Your task to perform on an android device: Open accessibility settings Image 0: 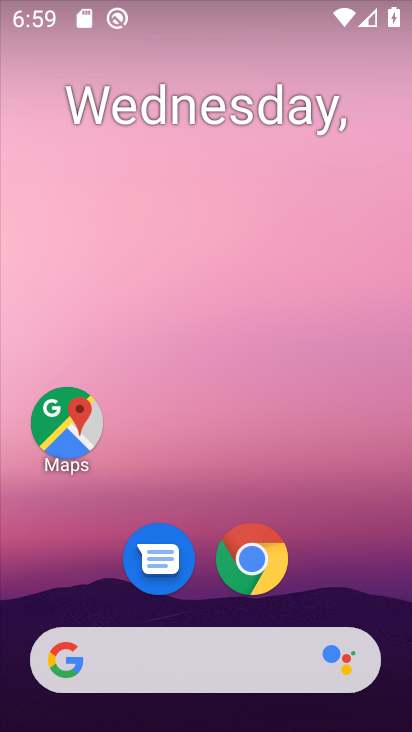
Step 0: drag from (365, 550) to (338, 144)
Your task to perform on an android device: Open accessibility settings Image 1: 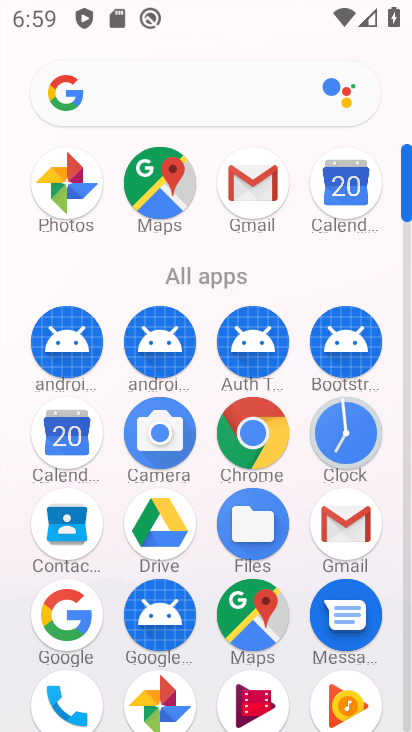
Step 1: click (409, 548)
Your task to perform on an android device: Open accessibility settings Image 2: 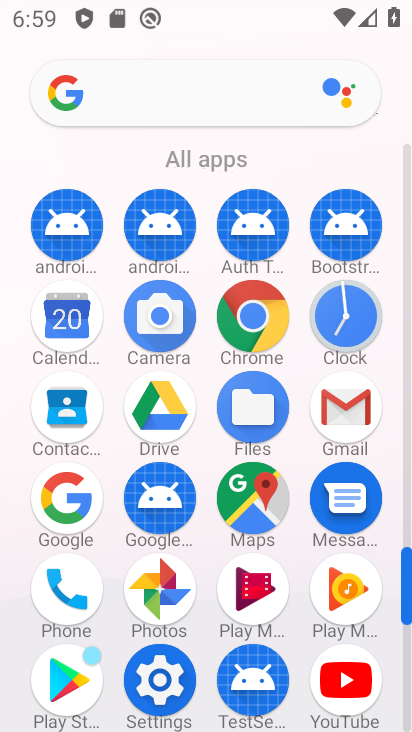
Step 2: click (182, 656)
Your task to perform on an android device: Open accessibility settings Image 3: 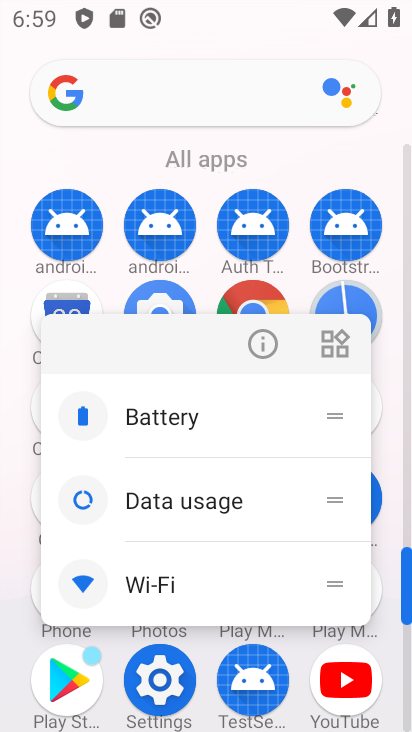
Step 3: click (182, 681)
Your task to perform on an android device: Open accessibility settings Image 4: 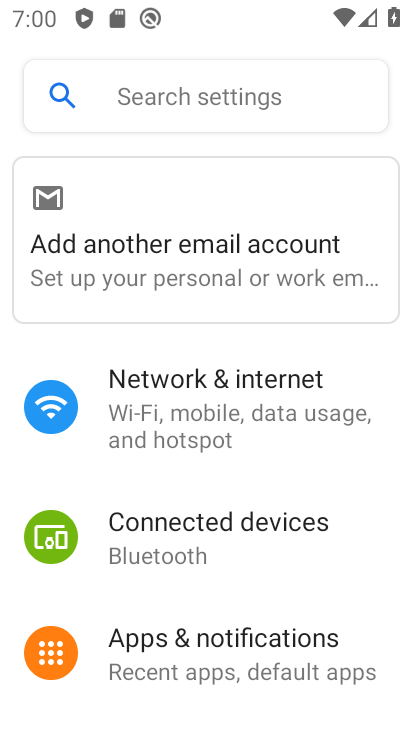
Step 4: drag from (234, 533) to (222, 51)
Your task to perform on an android device: Open accessibility settings Image 5: 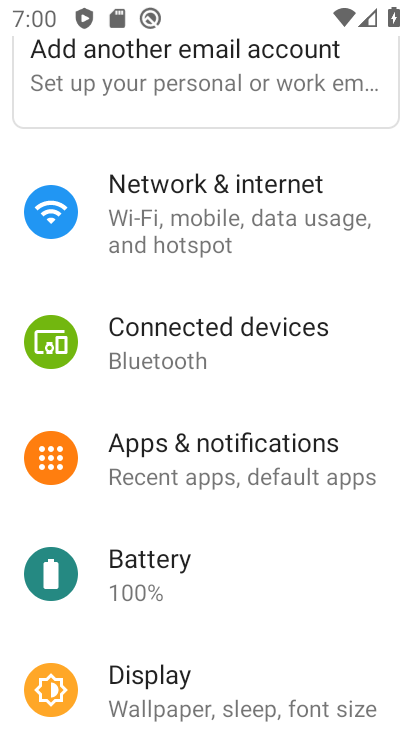
Step 5: drag from (211, 59) to (286, 24)
Your task to perform on an android device: Open accessibility settings Image 6: 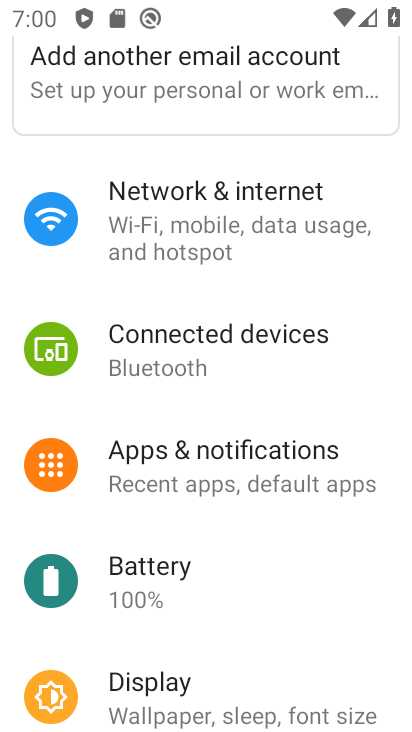
Step 6: drag from (284, 475) to (332, 0)
Your task to perform on an android device: Open accessibility settings Image 7: 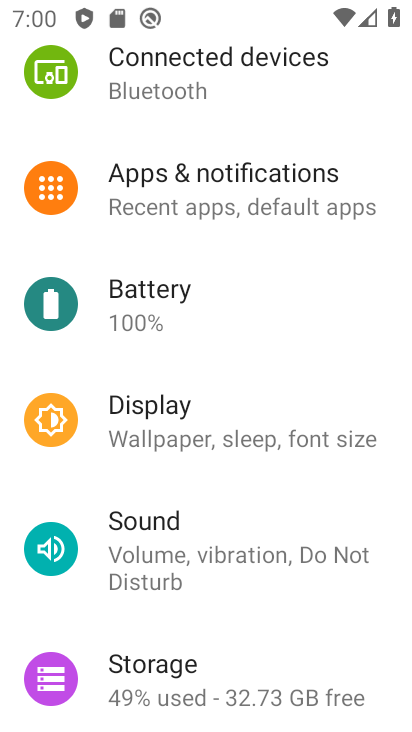
Step 7: drag from (314, 164) to (398, 116)
Your task to perform on an android device: Open accessibility settings Image 8: 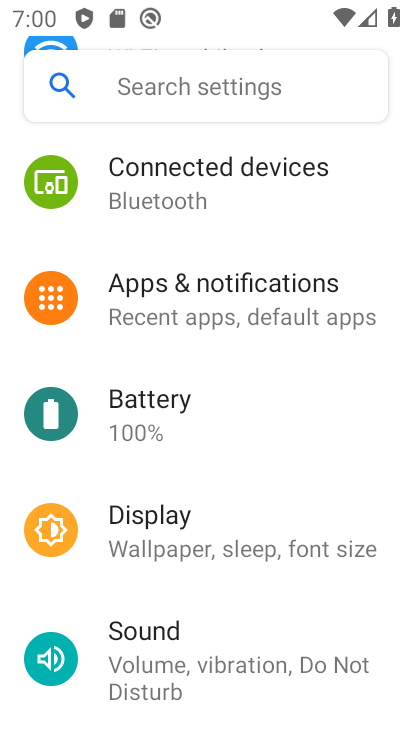
Step 8: drag from (201, 406) to (218, 18)
Your task to perform on an android device: Open accessibility settings Image 9: 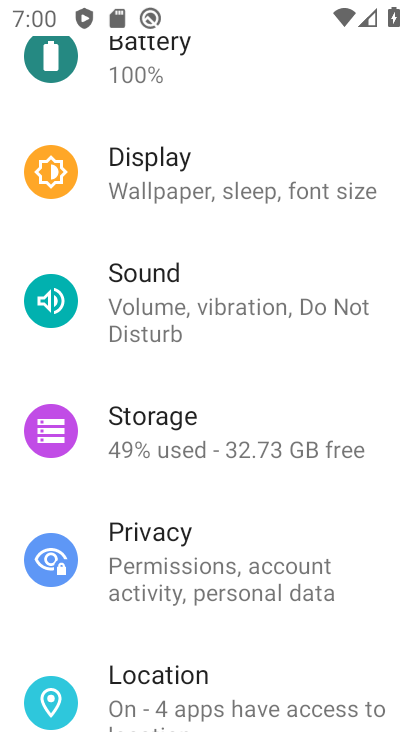
Step 9: drag from (178, 603) to (377, 34)
Your task to perform on an android device: Open accessibility settings Image 10: 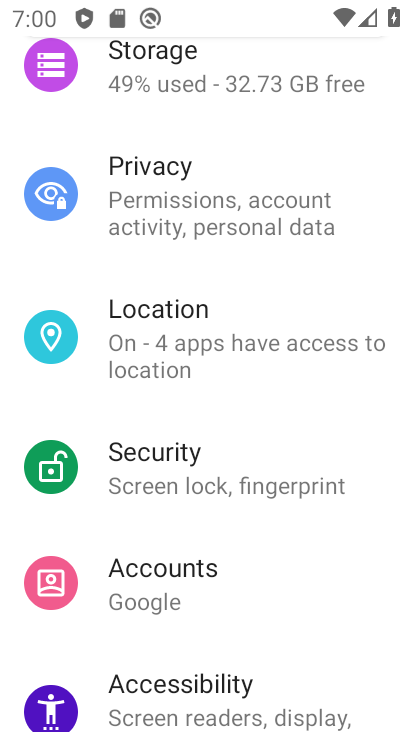
Step 10: click (145, 685)
Your task to perform on an android device: Open accessibility settings Image 11: 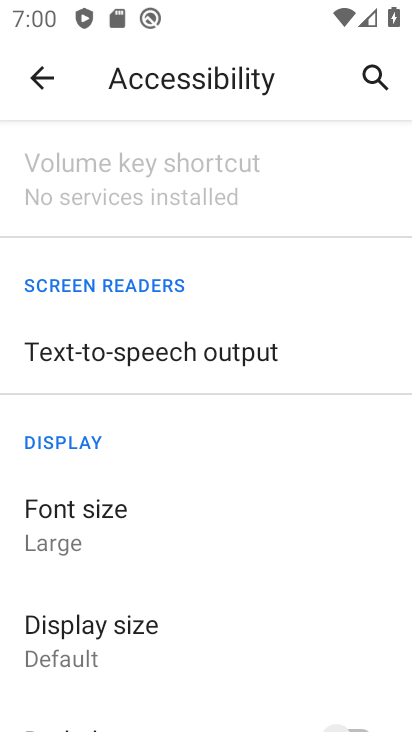
Step 11: task complete